Your task to perform on an android device: Go to Reddit.com Image 0: 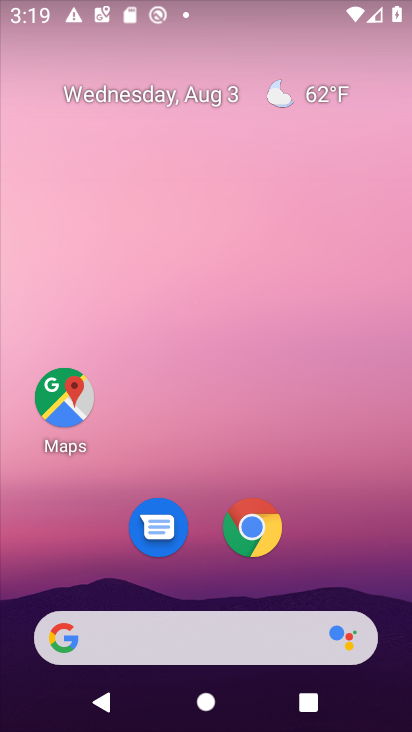
Step 0: drag from (338, 543) to (271, 117)
Your task to perform on an android device: Go to Reddit.com Image 1: 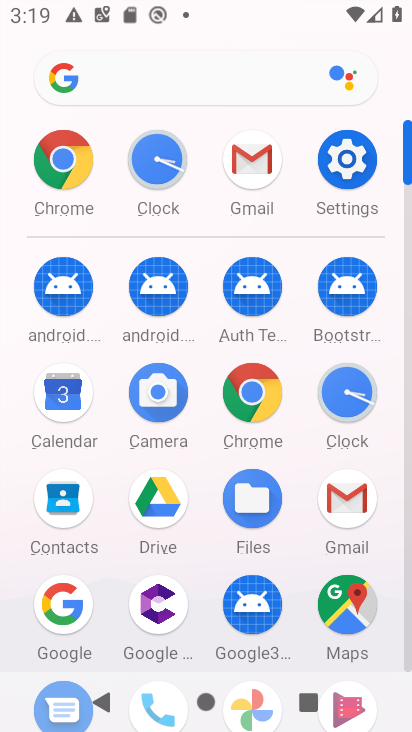
Step 1: click (258, 392)
Your task to perform on an android device: Go to Reddit.com Image 2: 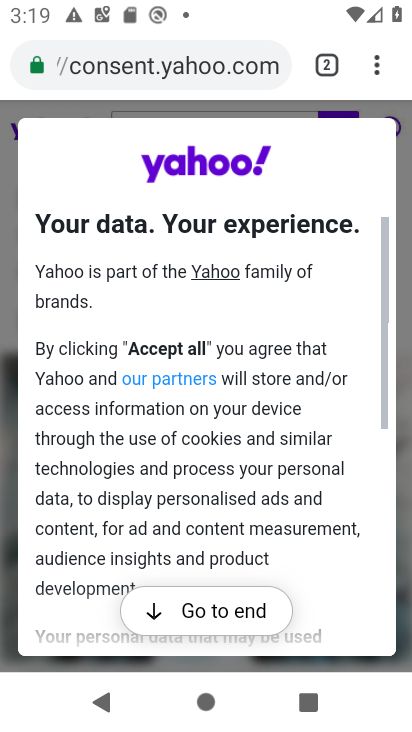
Step 2: click (213, 61)
Your task to perform on an android device: Go to Reddit.com Image 3: 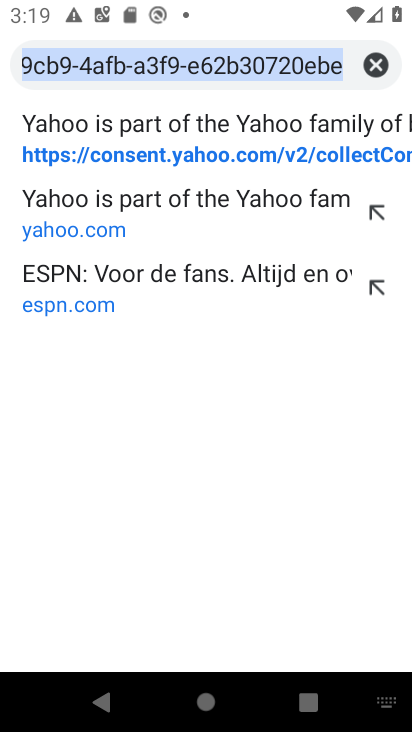
Step 3: click (379, 55)
Your task to perform on an android device: Go to Reddit.com Image 4: 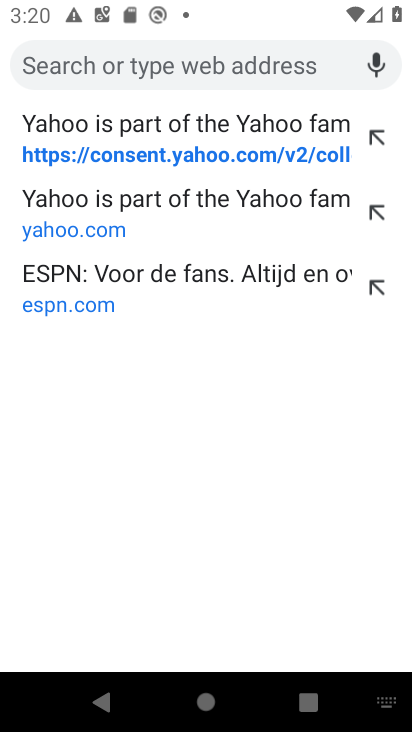
Step 4: type "Reddit.com"
Your task to perform on an android device: Go to Reddit.com Image 5: 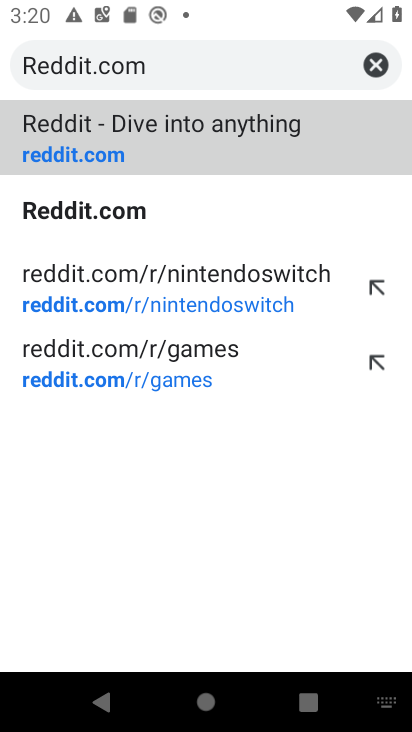
Step 5: click (103, 148)
Your task to perform on an android device: Go to Reddit.com Image 6: 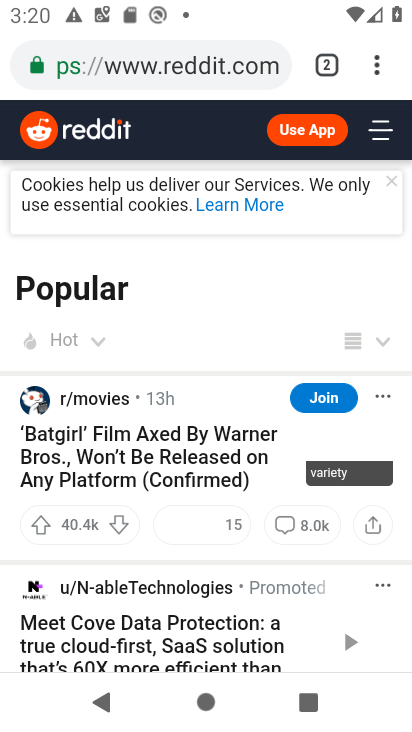
Step 6: task complete